Your task to perform on an android device: clear history in the chrome app Image 0: 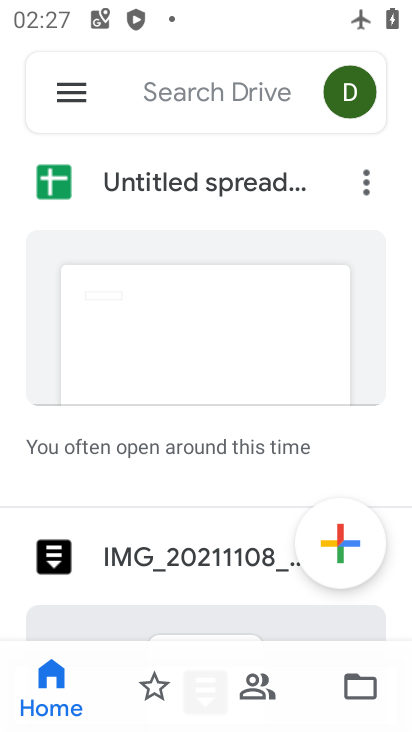
Step 0: press home button
Your task to perform on an android device: clear history in the chrome app Image 1: 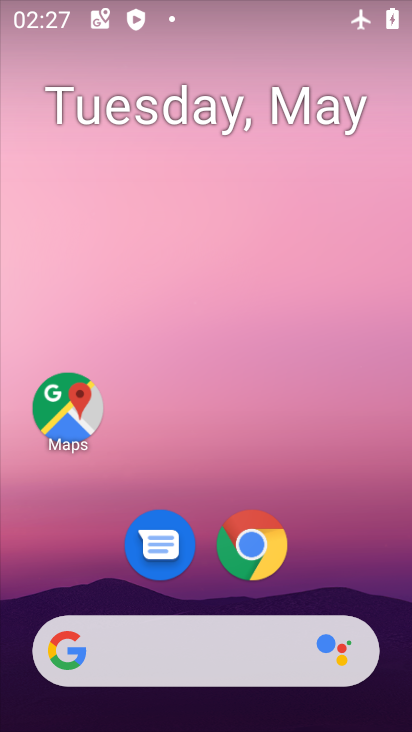
Step 1: click (251, 541)
Your task to perform on an android device: clear history in the chrome app Image 2: 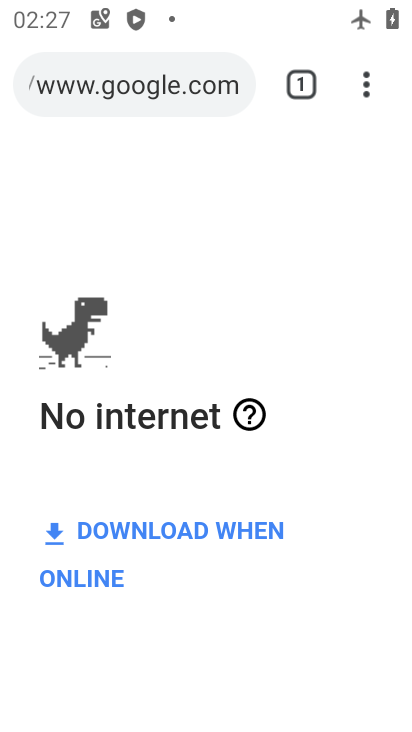
Step 2: press home button
Your task to perform on an android device: clear history in the chrome app Image 3: 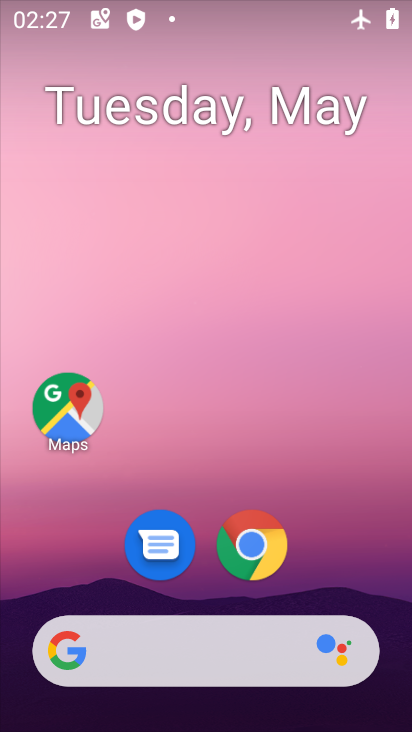
Step 3: drag from (380, 599) to (329, 83)
Your task to perform on an android device: clear history in the chrome app Image 4: 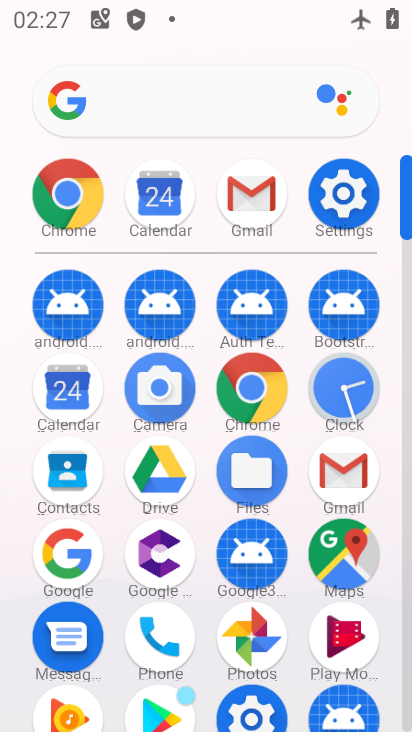
Step 4: click (408, 684)
Your task to perform on an android device: clear history in the chrome app Image 5: 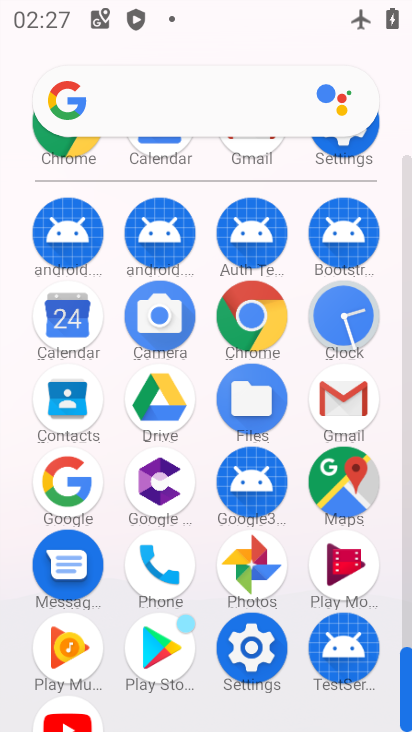
Step 5: click (248, 309)
Your task to perform on an android device: clear history in the chrome app Image 6: 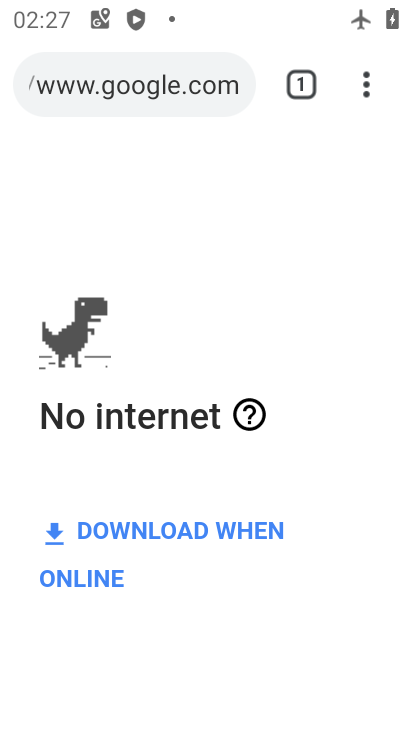
Step 6: click (363, 92)
Your task to perform on an android device: clear history in the chrome app Image 7: 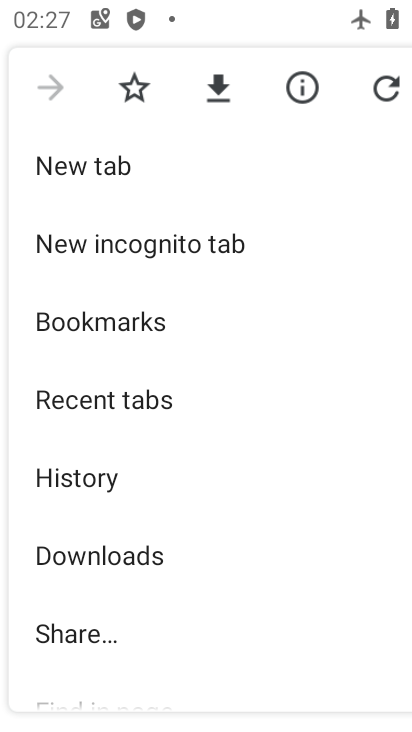
Step 7: click (72, 485)
Your task to perform on an android device: clear history in the chrome app Image 8: 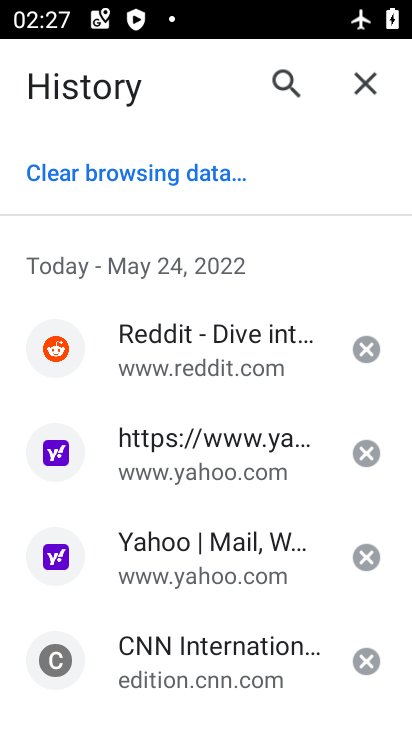
Step 8: click (111, 163)
Your task to perform on an android device: clear history in the chrome app Image 9: 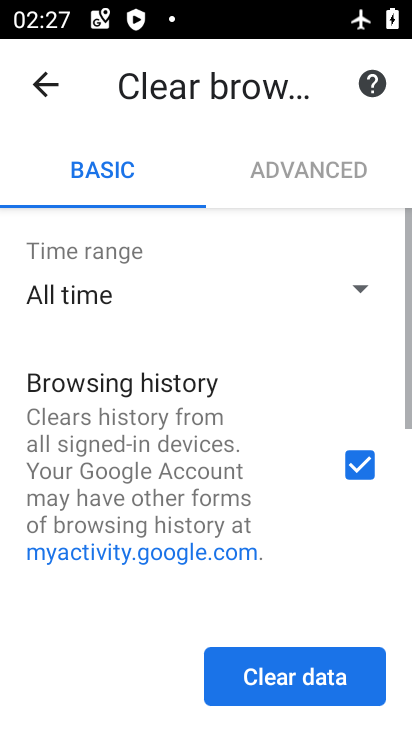
Step 9: drag from (284, 567) to (269, 140)
Your task to perform on an android device: clear history in the chrome app Image 10: 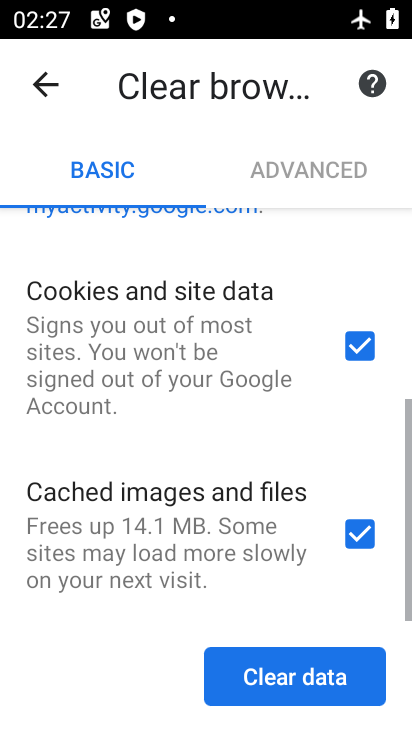
Step 10: click (366, 351)
Your task to perform on an android device: clear history in the chrome app Image 11: 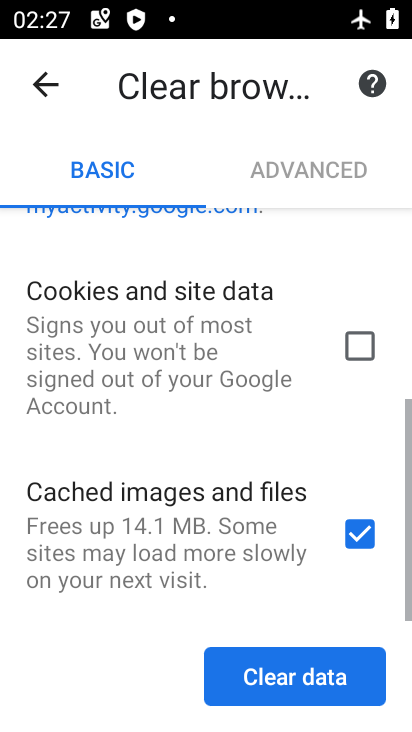
Step 11: click (360, 548)
Your task to perform on an android device: clear history in the chrome app Image 12: 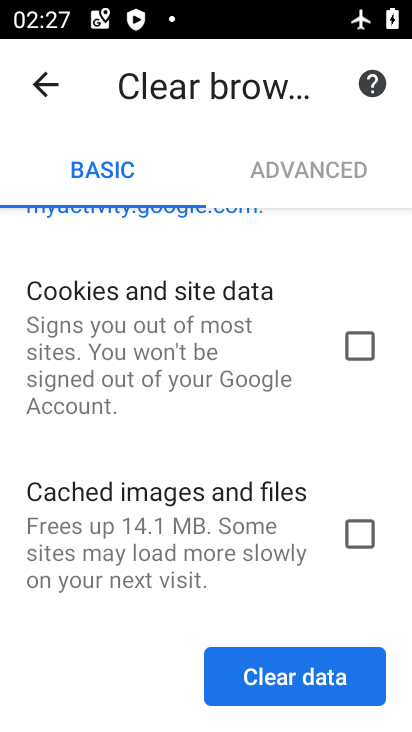
Step 12: click (296, 674)
Your task to perform on an android device: clear history in the chrome app Image 13: 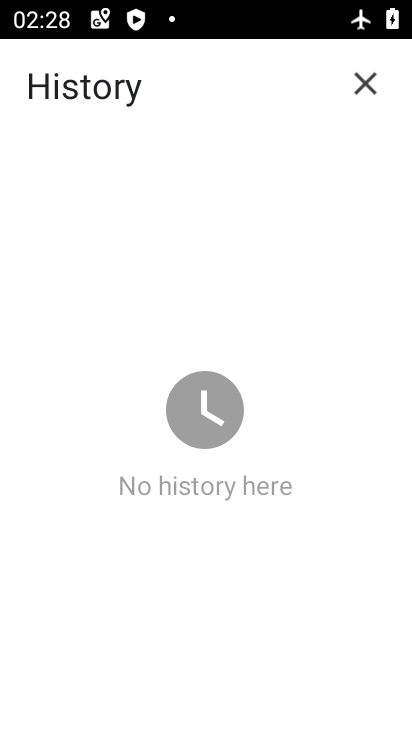
Step 13: task complete